Your task to perform on an android device: Open calendar and show me the third week of next month Image 0: 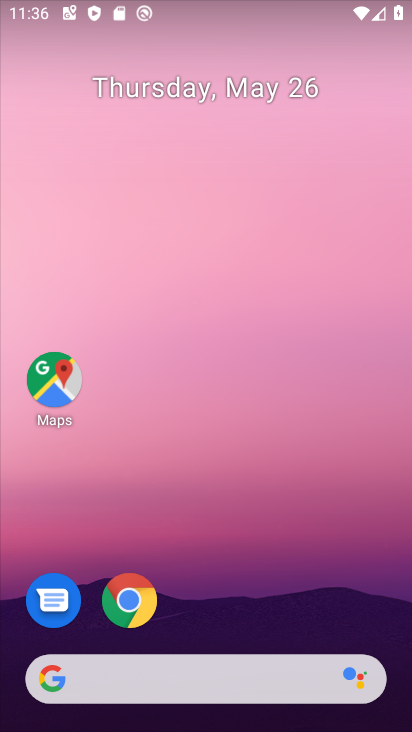
Step 0: click (137, 90)
Your task to perform on an android device: Open calendar and show me the third week of next month Image 1: 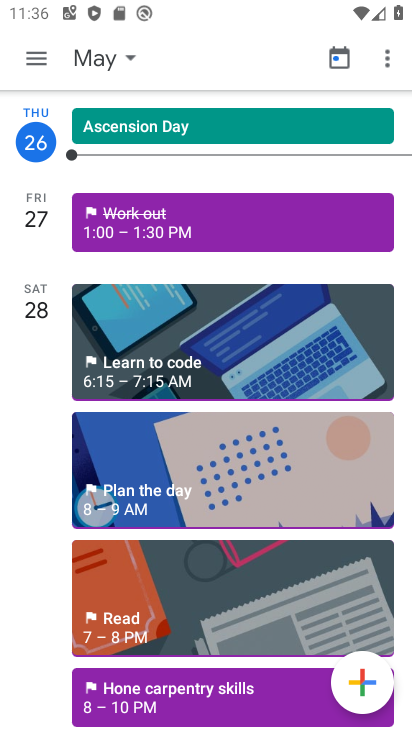
Step 1: click (122, 59)
Your task to perform on an android device: Open calendar and show me the third week of next month Image 2: 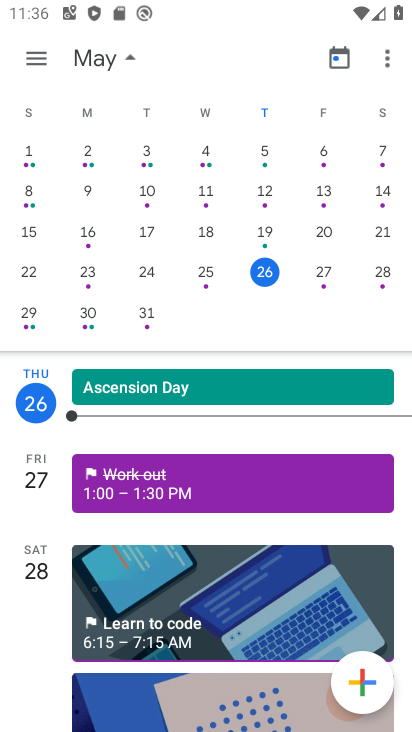
Step 2: drag from (339, 341) to (76, 324)
Your task to perform on an android device: Open calendar and show me the third week of next month Image 3: 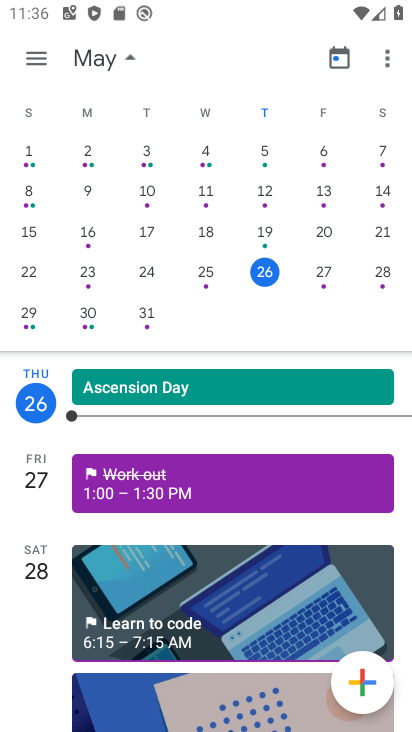
Step 3: drag from (323, 303) to (69, 292)
Your task to perform on an android device: Open calendar and show me the third week of next month Image 4: 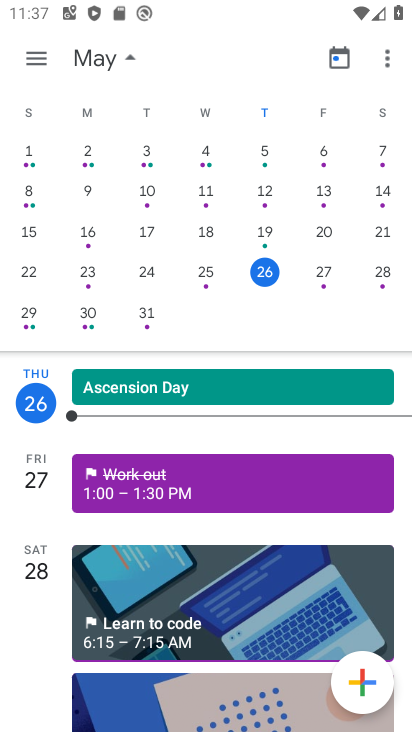
Step 4: drag from (350, 287) to (199, 301)
Your task to perform on an android device: Open calendar and show me the third week of next month Image 5: 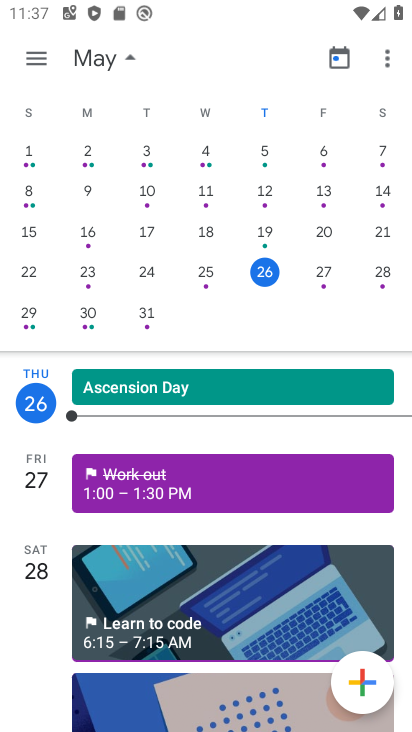
Step 5: drag from (395, 306) to (91, 269)
Your task to perform on an android device: Open calendar and show me the third week of next month Image 6: 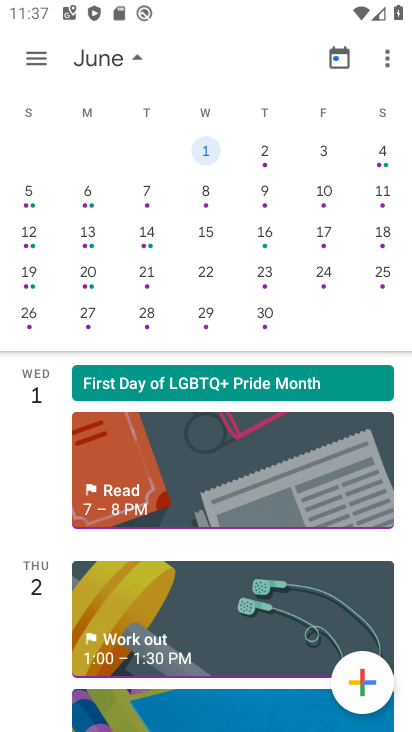
Step 6: click (265, 230)
Your task to perform on an android device: Open calendar and show me the third week of next month Image 7: 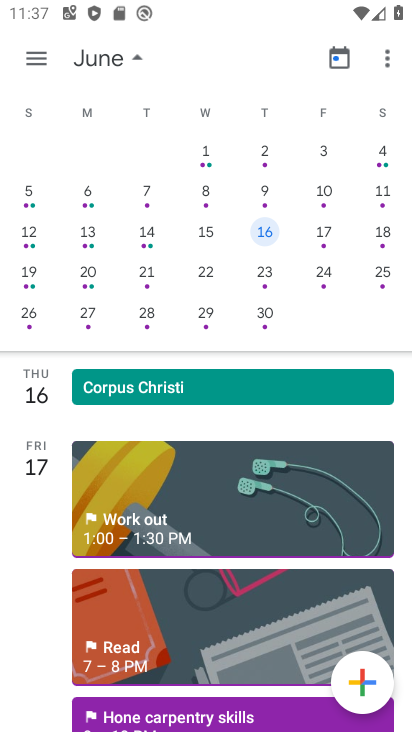
Step 7: task complete